Your task to perform on an android device: change notifications settings Image 0: 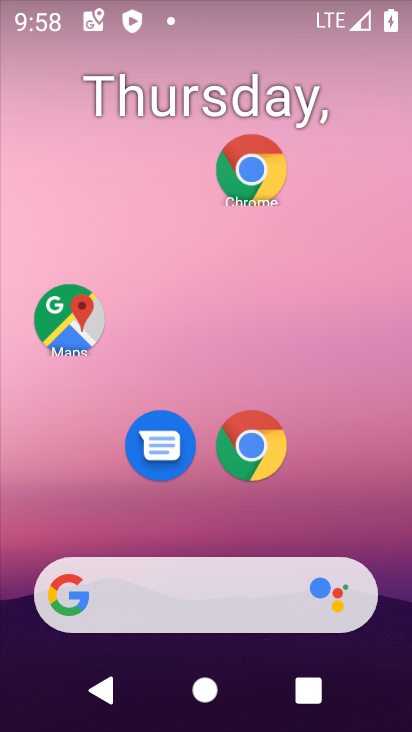
Step 0: drag from (235, 559) to (345, 708)
Your task to perform on an android device: change notifications settings Image 1: 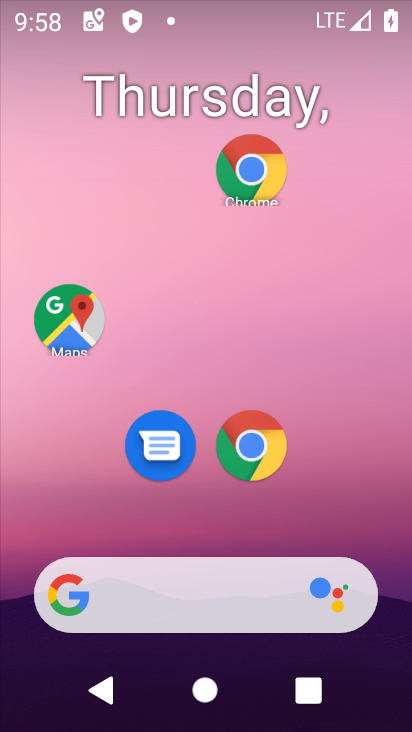
Step 1: drag from (214, 548) to (141, 4)
Your task to perform on an android device: change notifications settings Image 2: 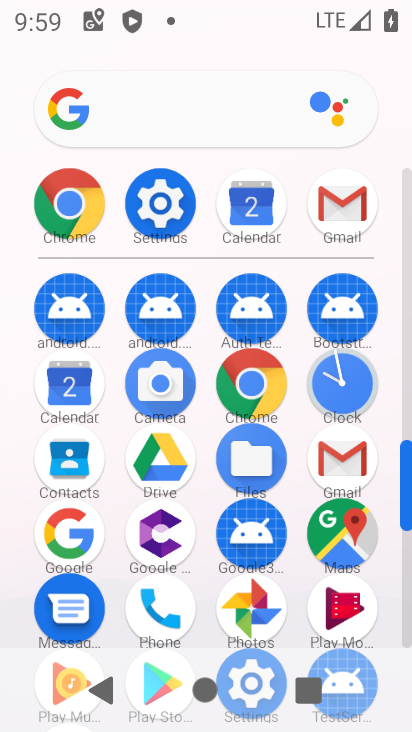
Step 2: click (159, 197)
Your task to perform on an android device: change notifications settings Image 3: 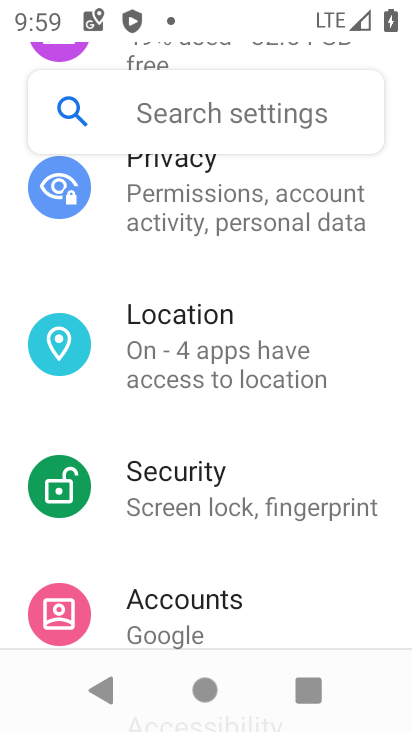
Step 3: drag from (238, 321) to (229, 642)
Your task to perform on an android device: change notifications settings Image 4: 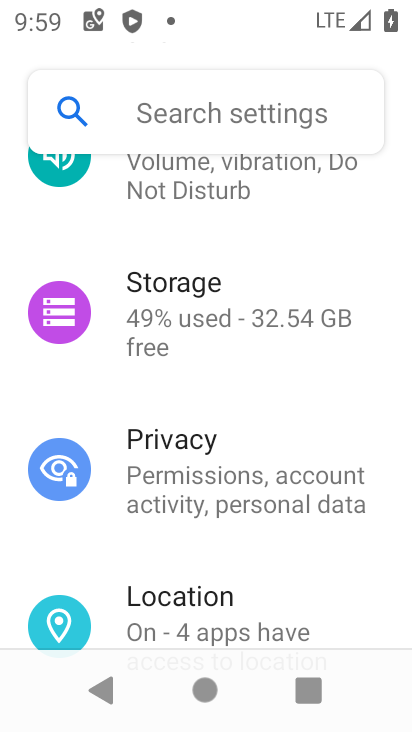
Step 4: drag from (165, 316) to (165, 696)
Your task to perform on an android device: change notifications settings Image 5: 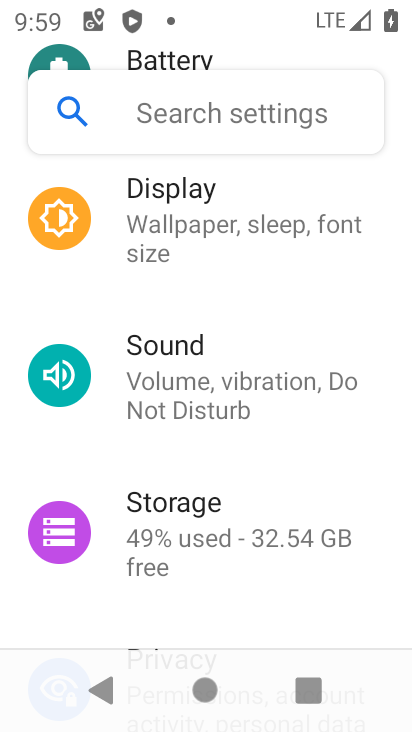
Step 5: drag from (169, 570) to (143, 107)
Your task to perform on an android device: change notifications settings Image 6: 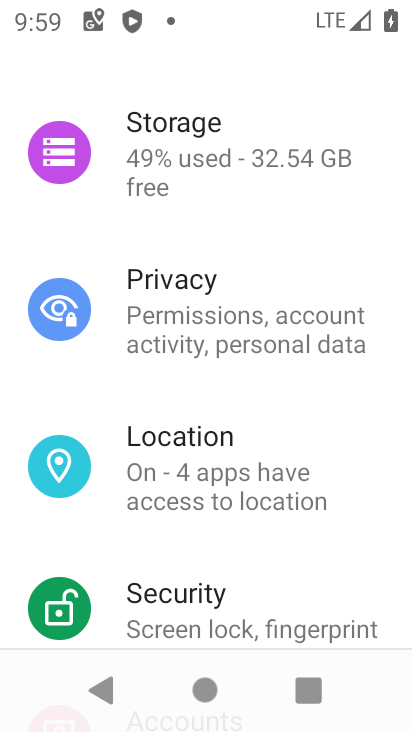
Step 6: drag from (180, 207) to (159, 704)
Your task to perform on an android device: change notifications settings Image 7: 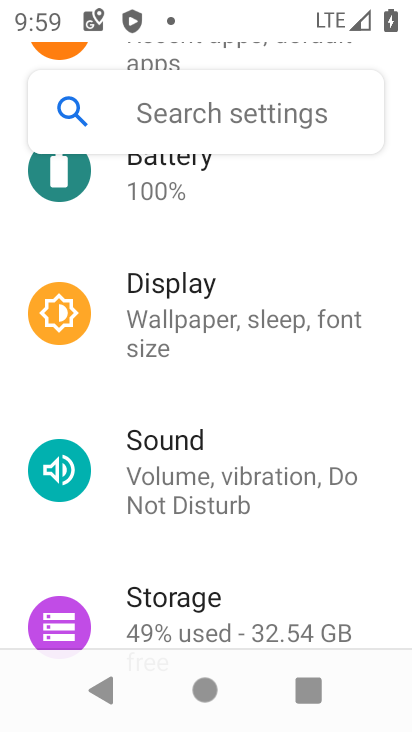
Step 7: drag from (156, 350) to (133, 699)
Your task to perform on an android device: change notifications settings Image 8: 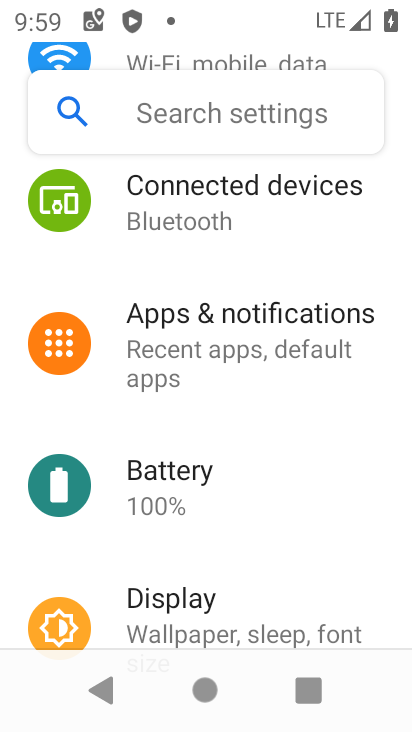
Step 8: click (126, 359)
Your task to perform on an android device: change notifications settings Image 9: 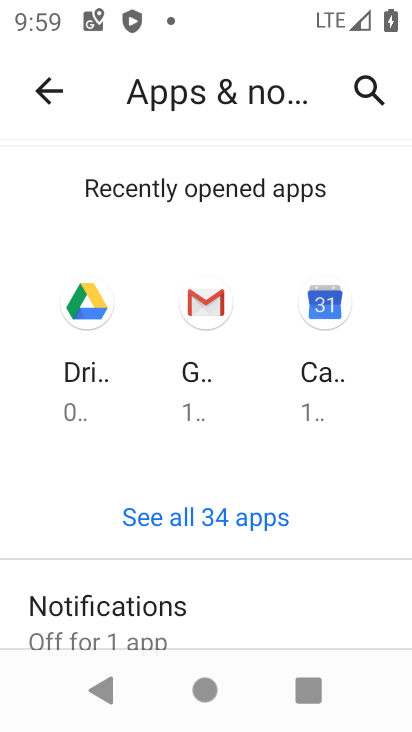
Step 9: click (241, 624)
Your task to perform on an android device: change notifications settings Image 10: 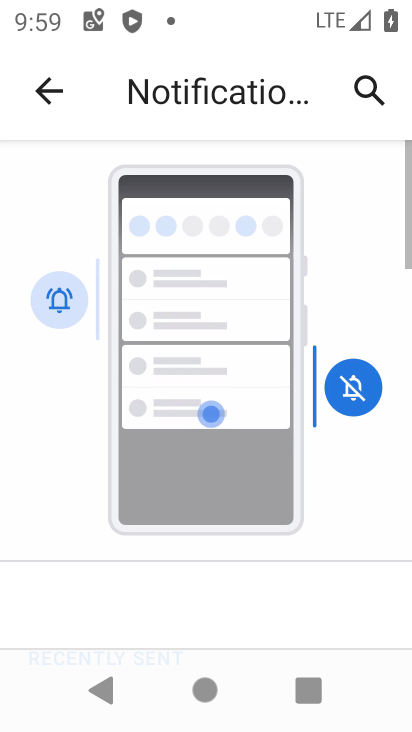
Step 10: task complete